Your task to perform on an android device: turn off improve location accuracy Image 0: 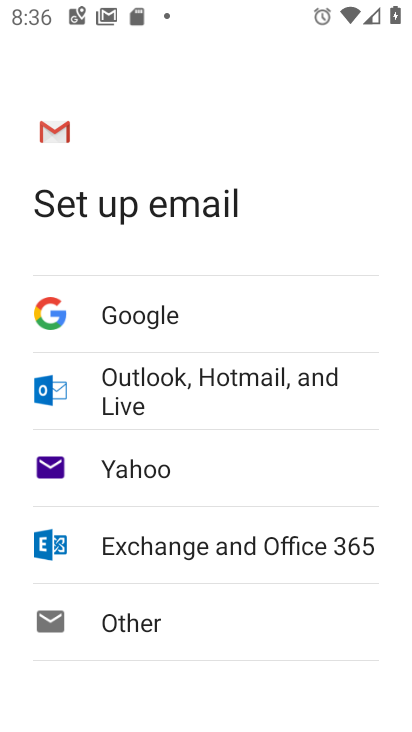
Step 0: press home button
Your task to perform on an android device: turn off improve location accuracy Image 1: 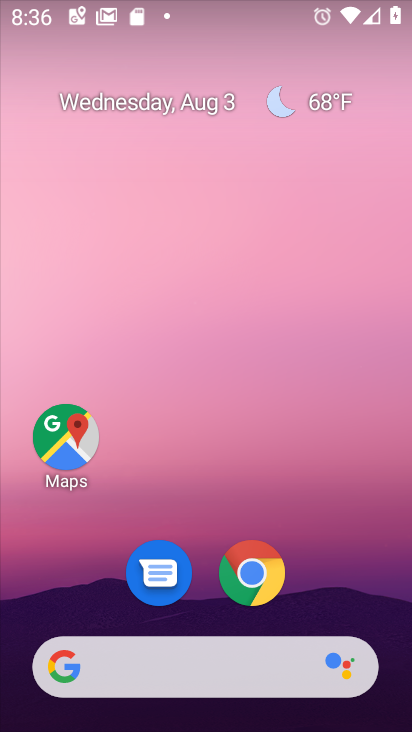
Step 1: drag from (350, 597) to (311, 15)
Your task to perform on an android device: turn off improve location accuracy Image 2: 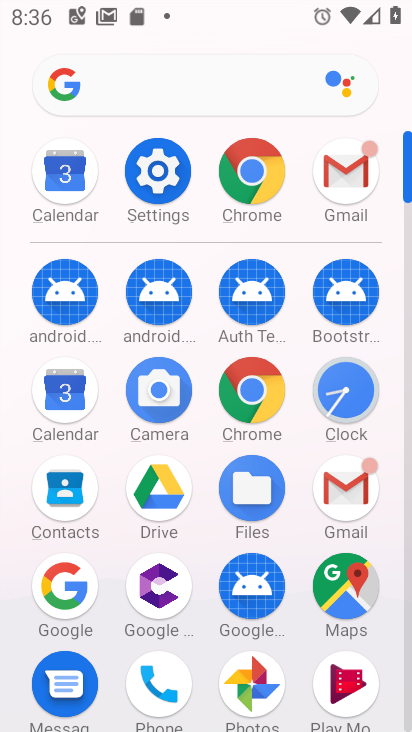
Step 2: click (160, 176)
Your task to perform on an android device: turn off improve location accuracy Image 3: 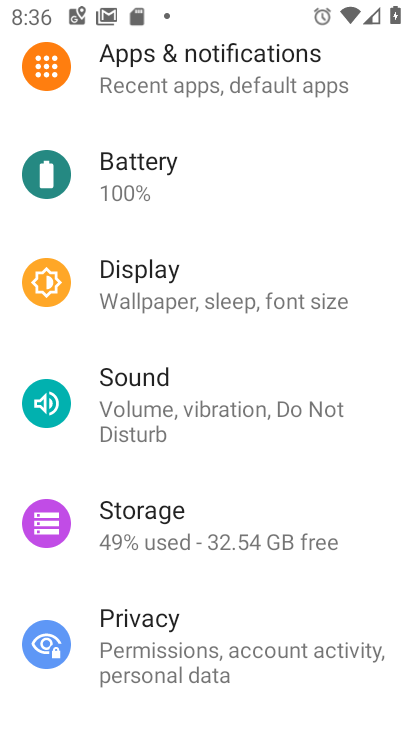
Step 3: drag from (387, 589) to (390, 221)
Your task to perform on an android device: turn off improve location accuracy Image 4: 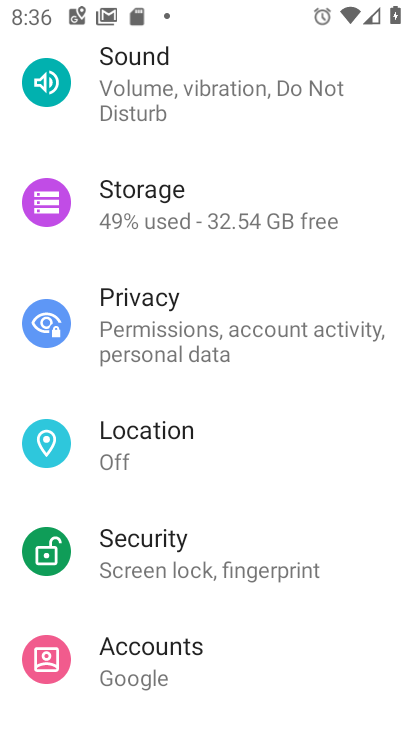
Step 4: click (114, 450)
Your task to perform on an android device: turn off improve location accuracy Image 5: 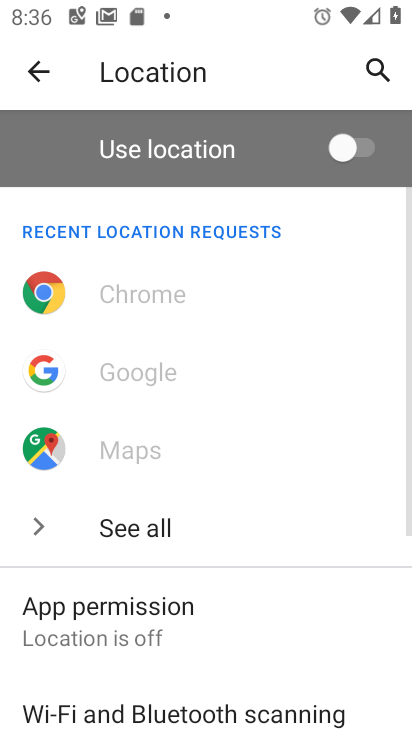
Step 5: drag from (264, 557) to (266, 173)
Your task to perform on an android device: turn off improve location accuracy Image 6: 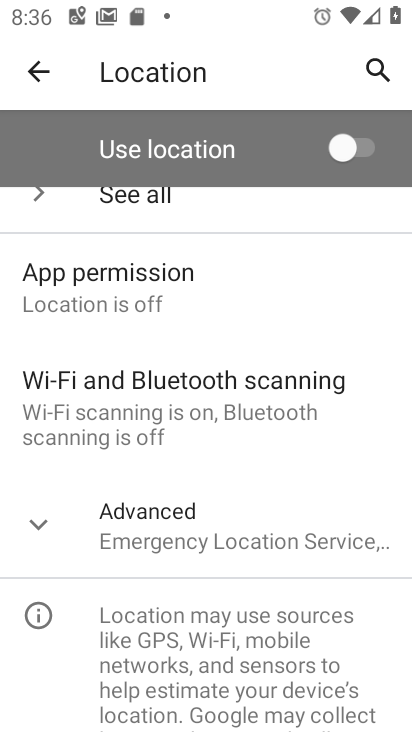
Step 6: click (37, 532)
Your task to perform on an android device: turn off improve location accuracy Image 7: 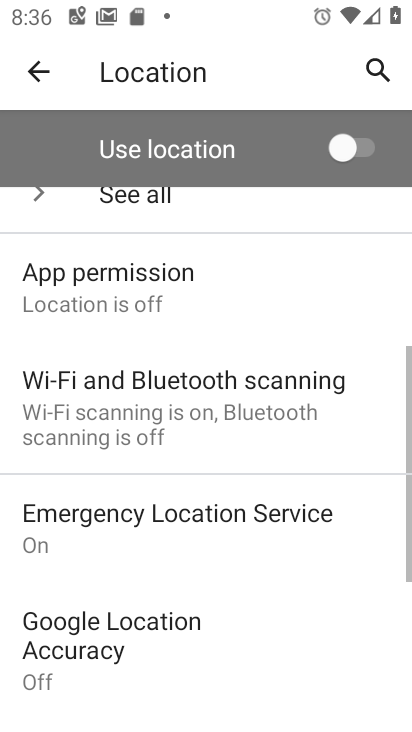
Step 7: drag from (342, 524) to (334, 287)
Your task to perform on an android device: turn off improve location accuracy Image 8: 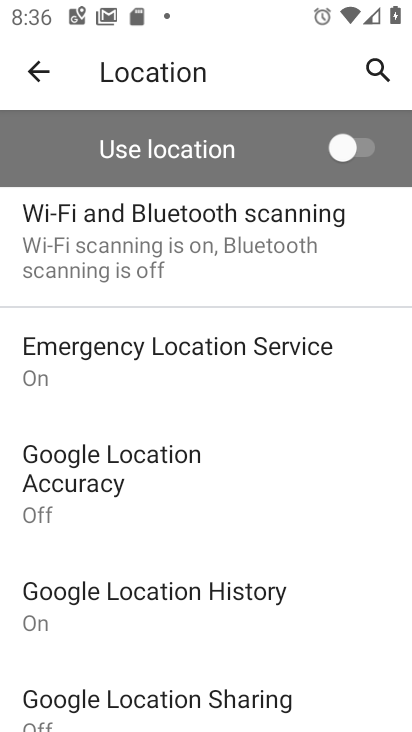
Step 8: click (60, 494)
Your task to perform on an android device: turn off improve location accuracy Image 9: 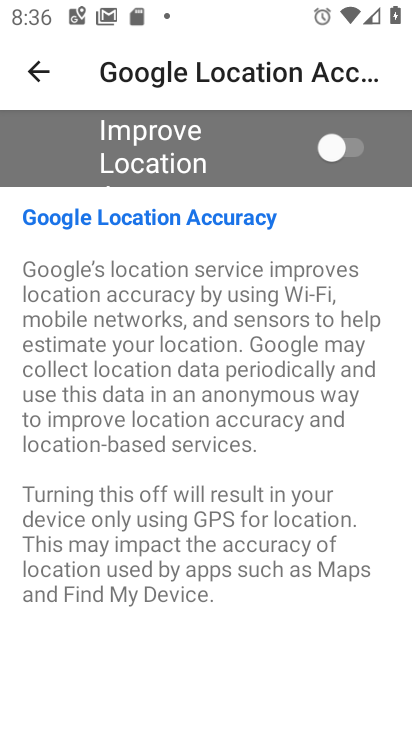
Step 9: task complete